Your task to perform on an android device: add a contact Image 0: 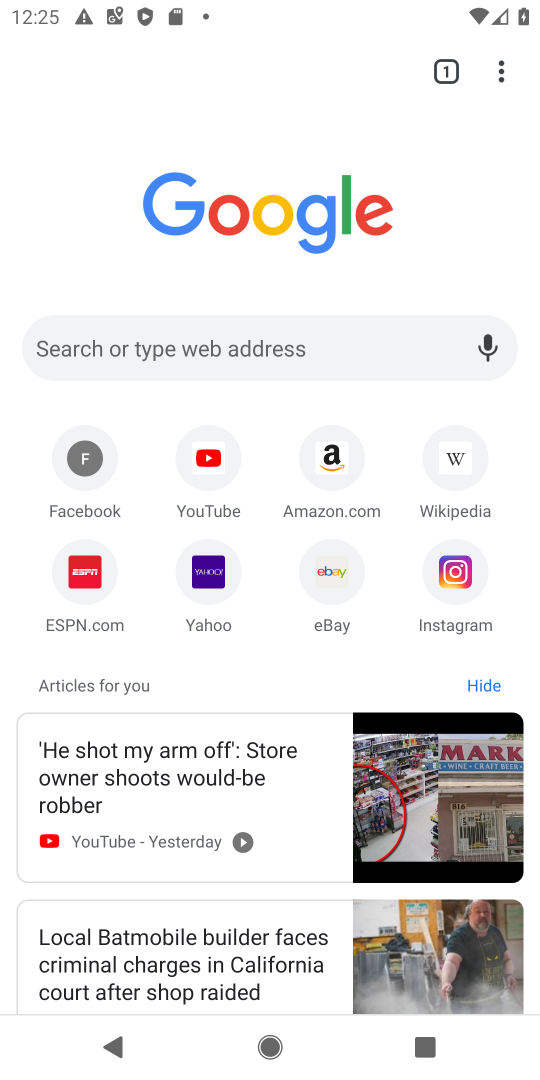
Step 0: press home button
Your task to perform on an android device: add a contact Image 1: 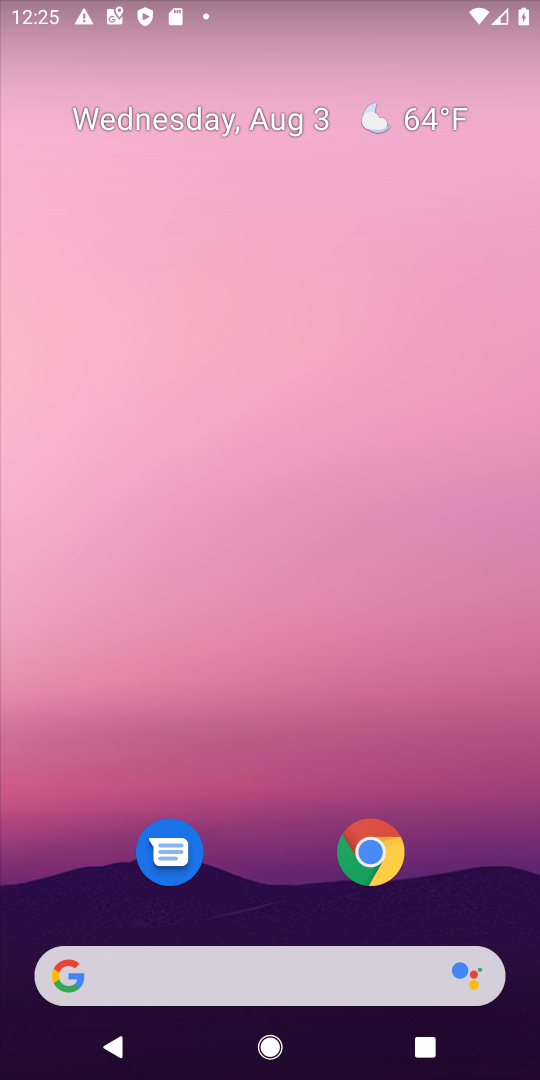
Step 1: drag from (483, 823) to (269, 151)
Your task to perform on an android device: add a contact Image 2: 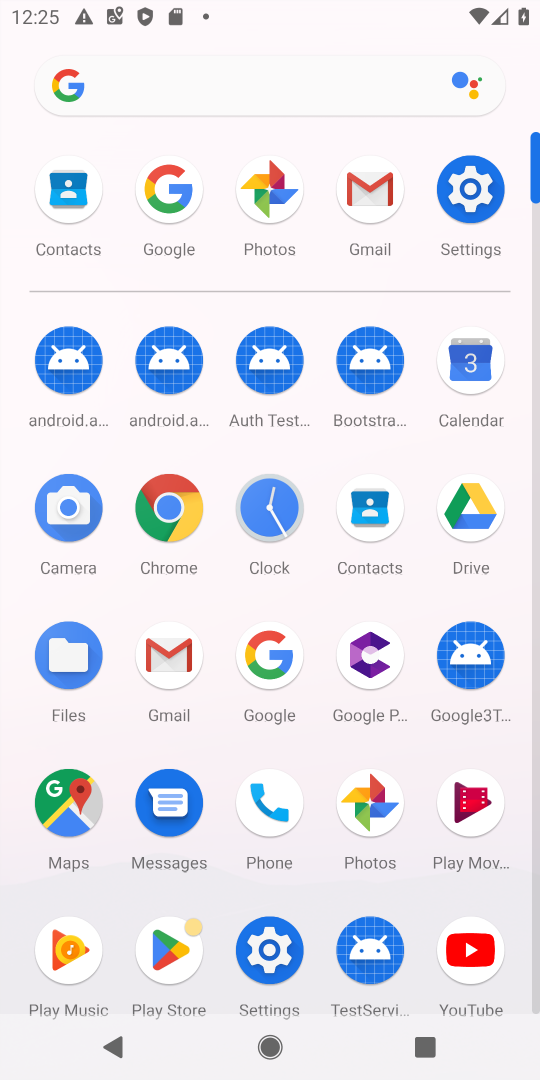
Step 2: click (381, 513)
Your task to perform on an android device: add a contact Image 3: 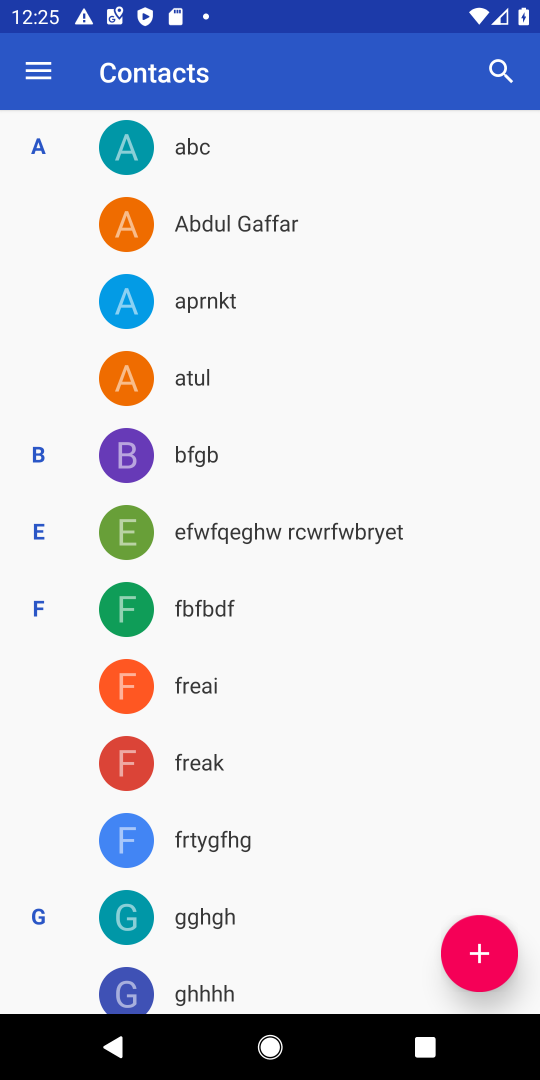
Step 3: click (496, 944)
Your task to perform on an android device: add a contact Image 4: 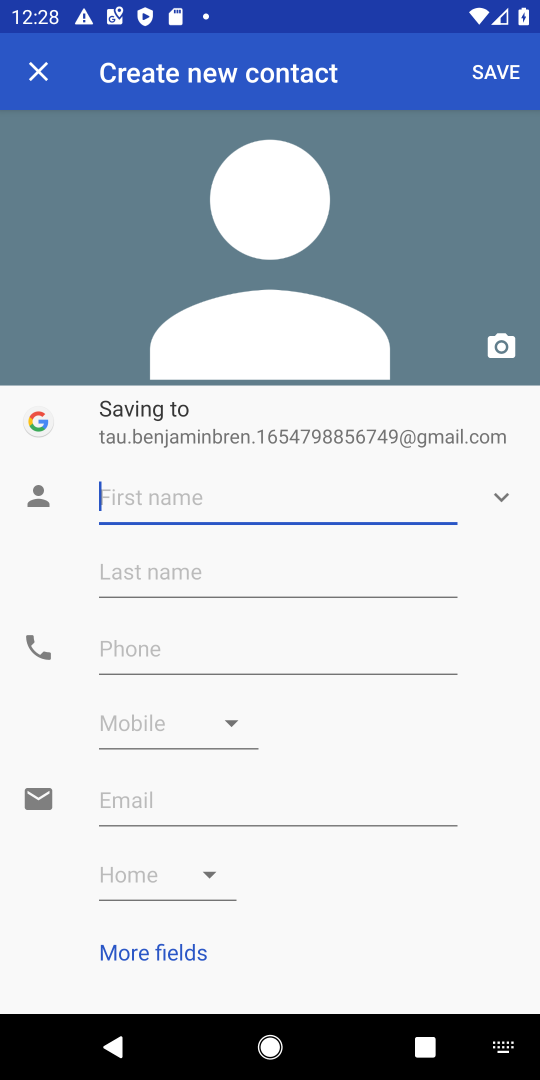
Step 4: type "rahul"
Your task to perform on an android device: add a contact Image 5: 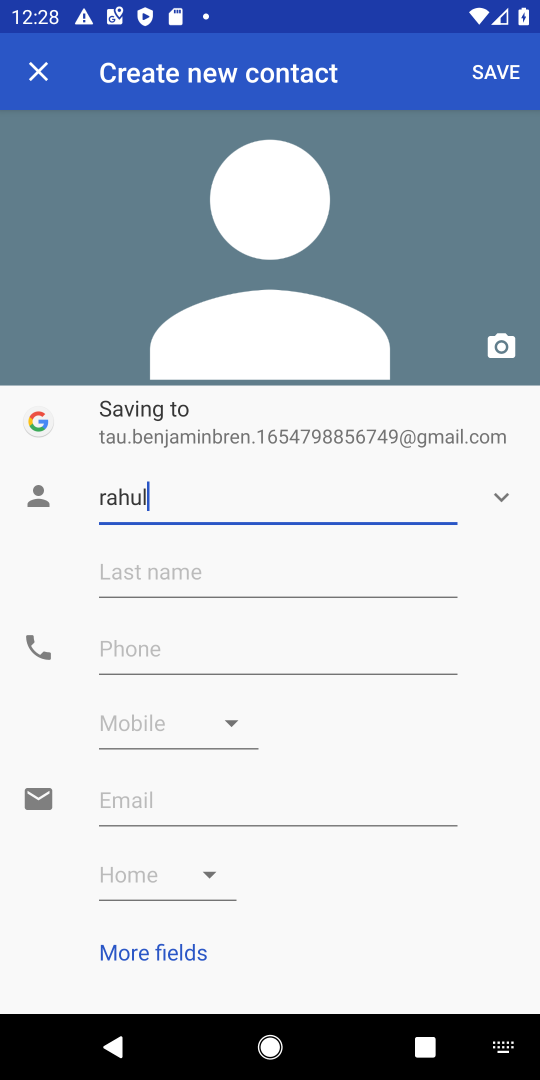
Step 5: click (489, 57)
Your task to perform on an android device: add a contact Image 6: 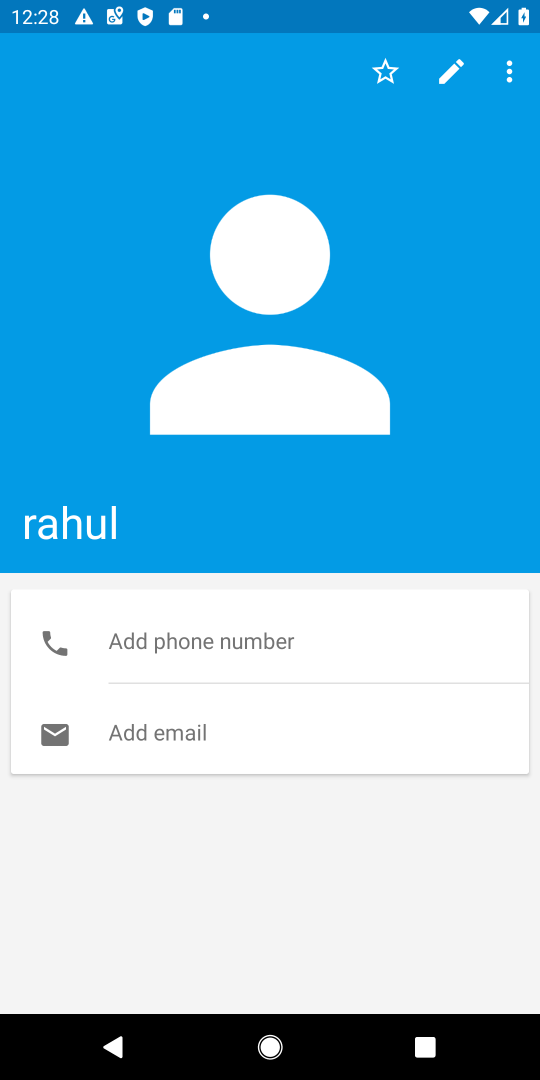
Step 6: task complete